Your task to perform on an android device: open app "ColorNote Notepad Notes" (install if not already installed) and enter user name: "unbridled@gmail.com" and password: "regularly" Image 0: 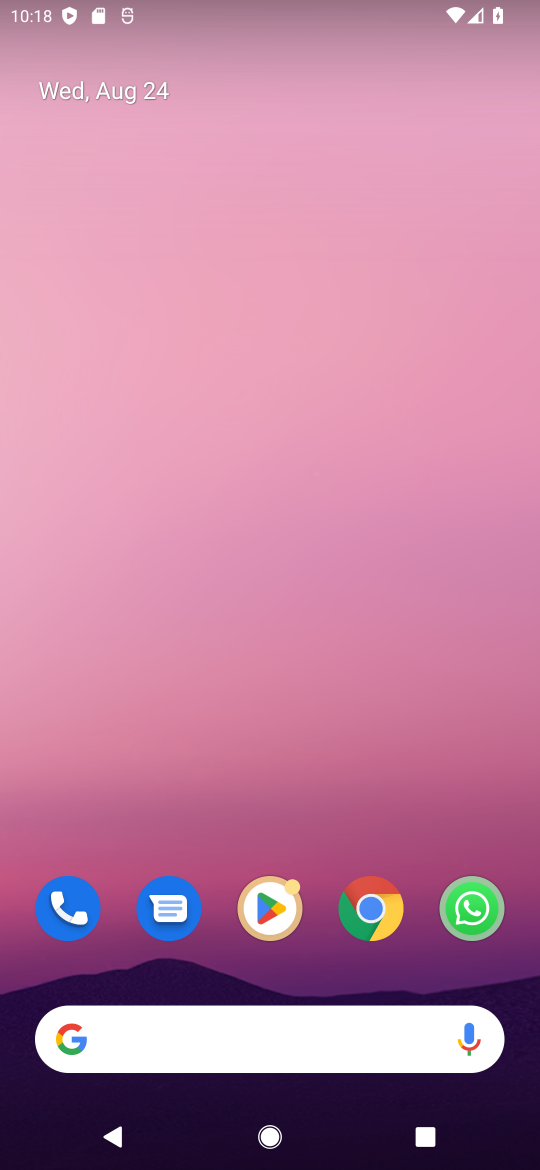
Step 0: click (273, 927)
Your task to perform on an android device: open app "ColorNote Notepad Notes" (install if not already installed) and enter user name: "unbridled@gmail.com" and password: "regularly" Image 1: 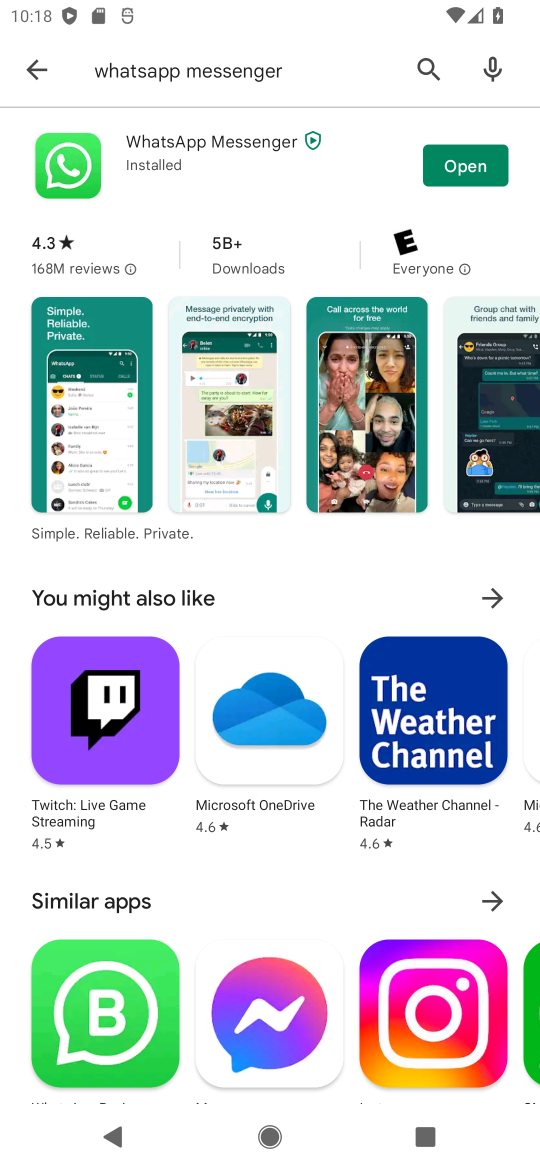
Step 1: click (39, 62)
Your task to perform on an android device: open app "ColorNote Notepad Notes" (install if not already installed) and enter user name: "unbridled@gmail.com" and password: "regularly" Image 2: 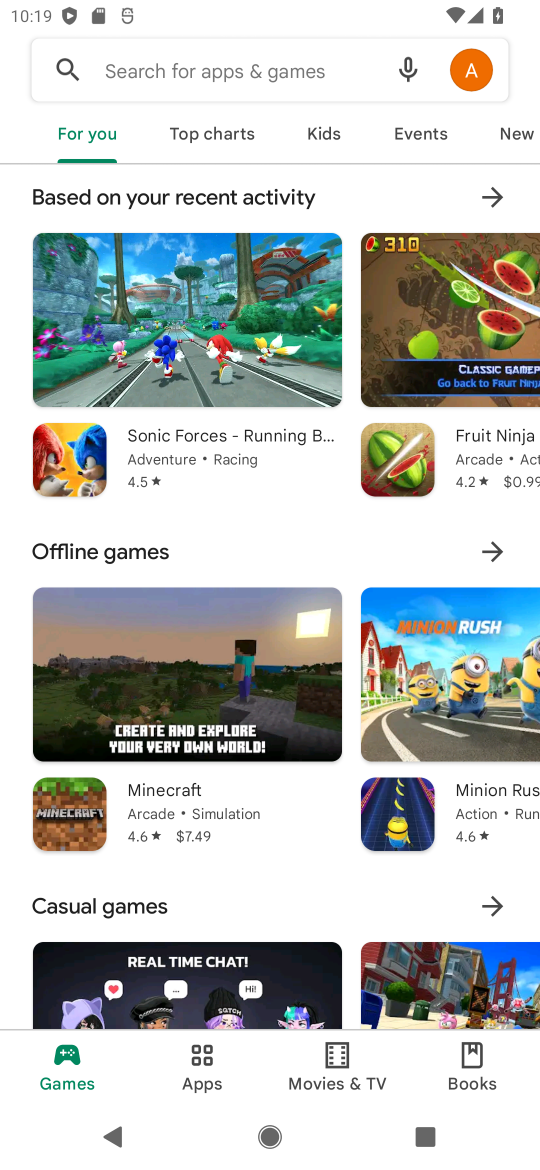
Step 2: type "ColorNote Notepad Notes"
Your task to perform on an android device: open app "ColorNote Notepad Notes" (install if not already installed) and enter user name: "unbridled@gmail.com" and password: "regularly" Image 3: 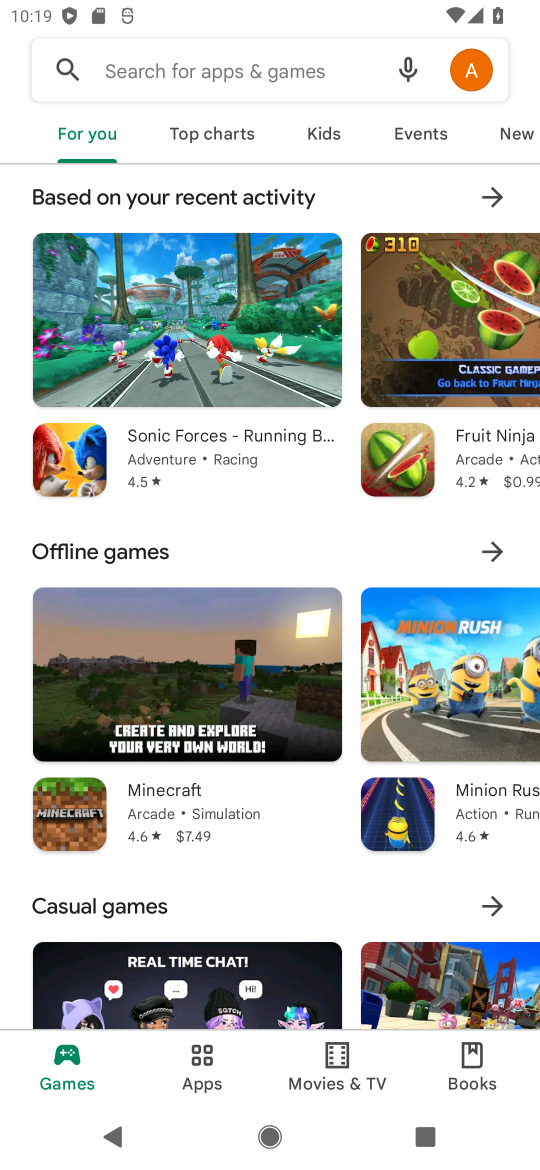
Step 3: click (331, 84)
Your task to perform on an android device: open app "ColorNote Notepad Notes" (install if not already installed) and enter user name: "unbridled@gmail.com" and password: "regularly" Image 4: 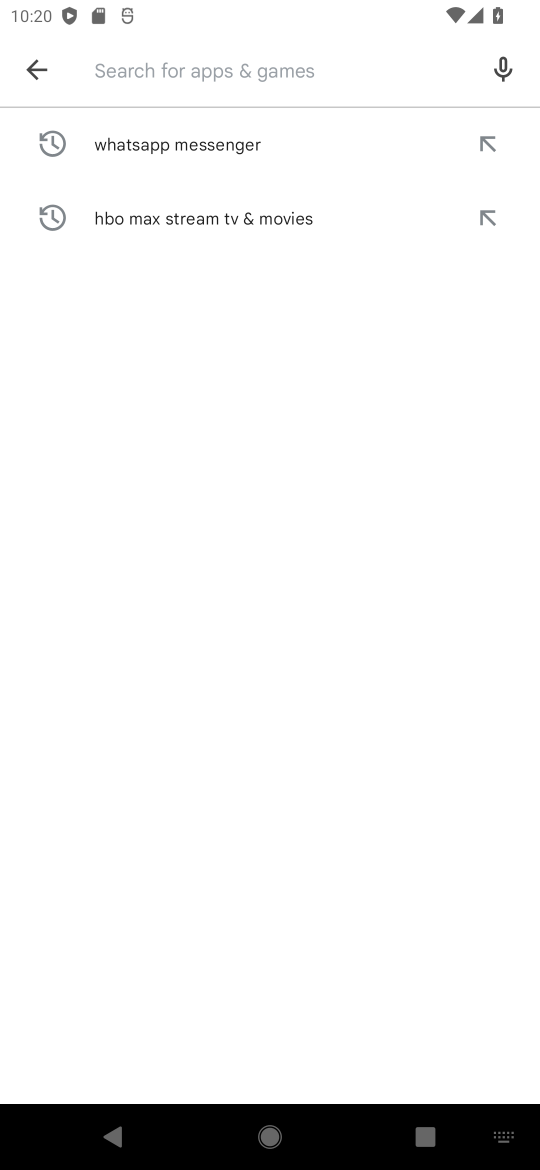
Step 4: type "ColorNote Notepad Notes"
Your task to perform on an android device: open app "ColorNote Notepad Notes" (install if not already installed) and enter user name: "unbridled@gmail.com" and password: "regularly" Image 5: 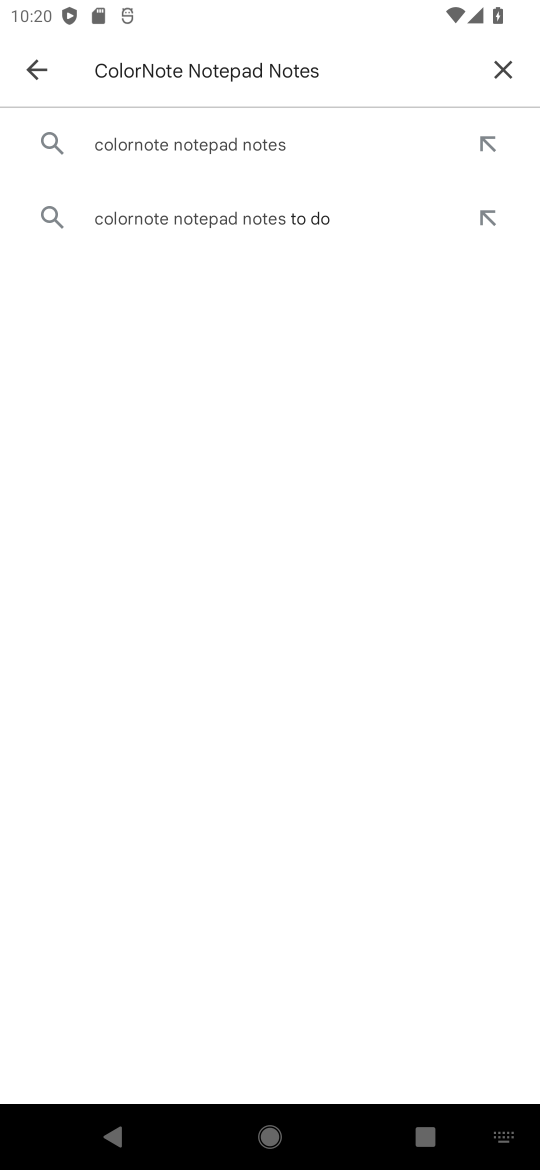
Step 5: click (155, 163)
Your task to perform on an android device: open app "ColorNote Notepad Notes" (install if not already installed) and enter user name: "unbridled@gmail.com" and password: "regularly" Image 6: 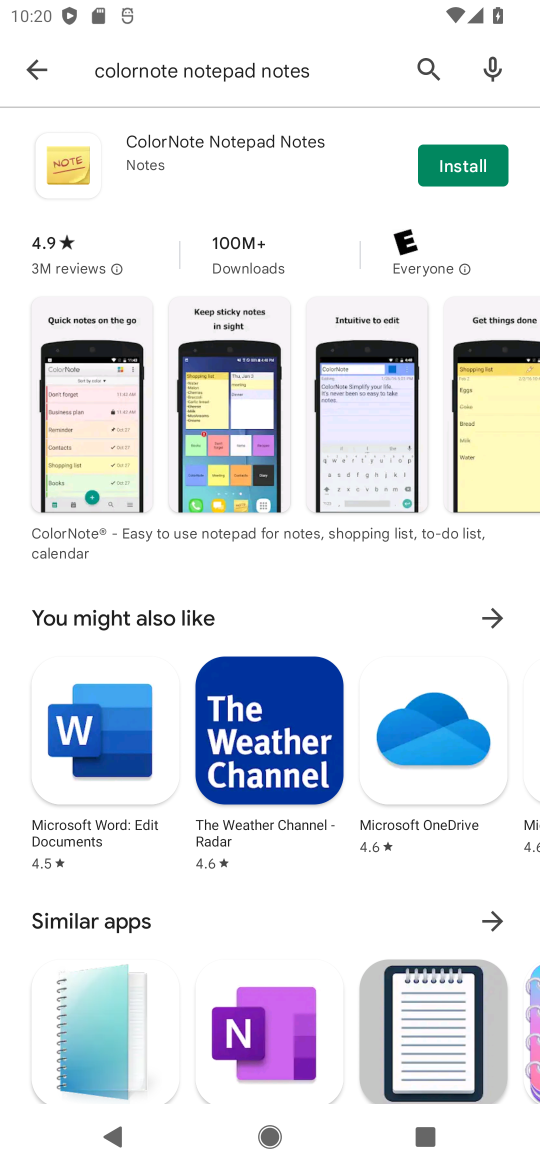
Step 6: click (478, 152)
Your task to perform on an android device: open app "ColorNote Notepad Notes" (install if not already installed) and enter user name: "unbridled@gmail.com" and password: "regularly" Image 7: 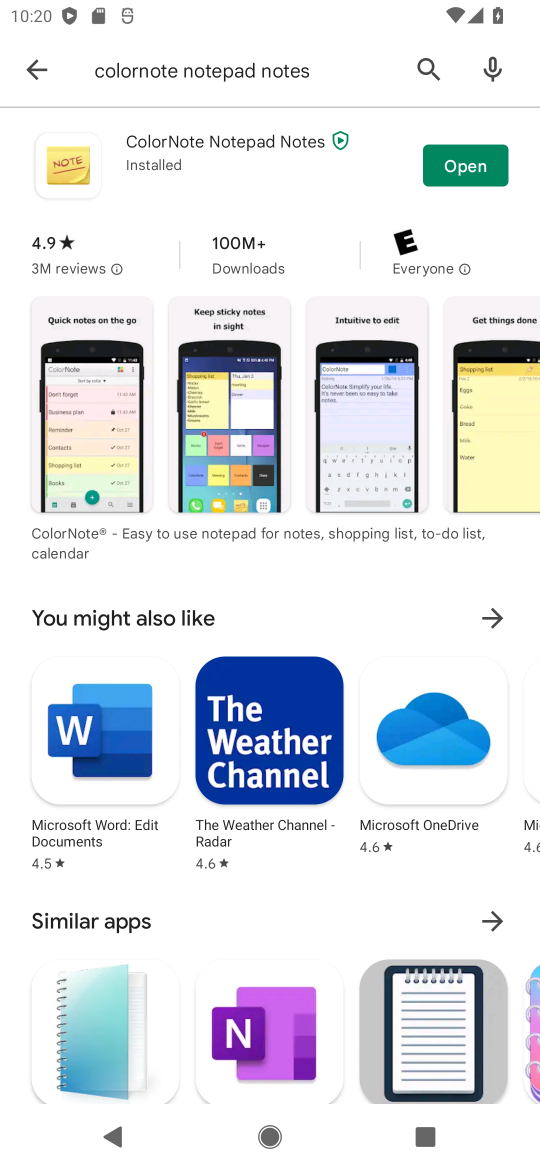
Step 7: click (478, 152)
Your task to perform on an android device: open app "ColorNote Notepad Notes" (install if not already installed) and enter user name: "unbridled@gmail.com" and password: "regularly" Image 8: 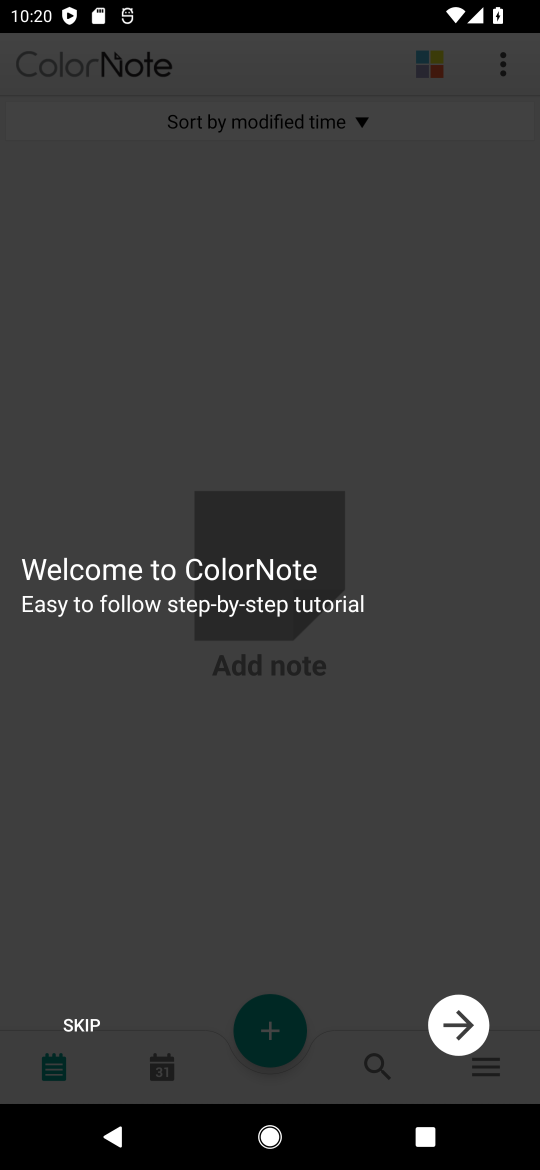
Step 8: click (454, 1013)
Your task to perform on an android device: open app "ColorNote Notepad Notes" (install if not already installed) and enter user name: "unbridled@gmail.com" and password: "regularly" Image 9: 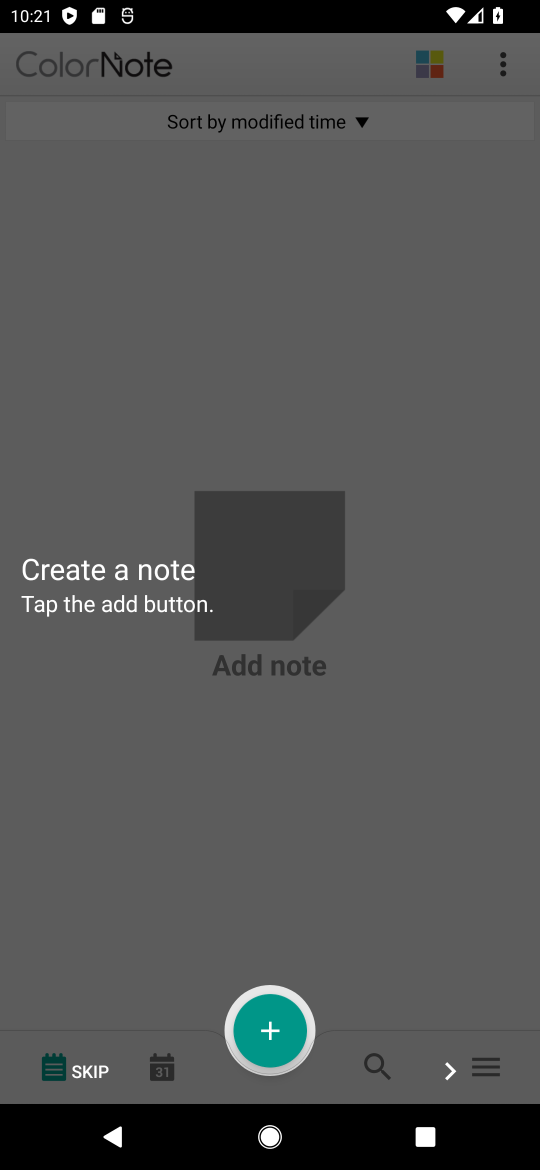
Step 9: task complete